Your task to perform on an android device: Check the settings for the Instagram app Image 0: 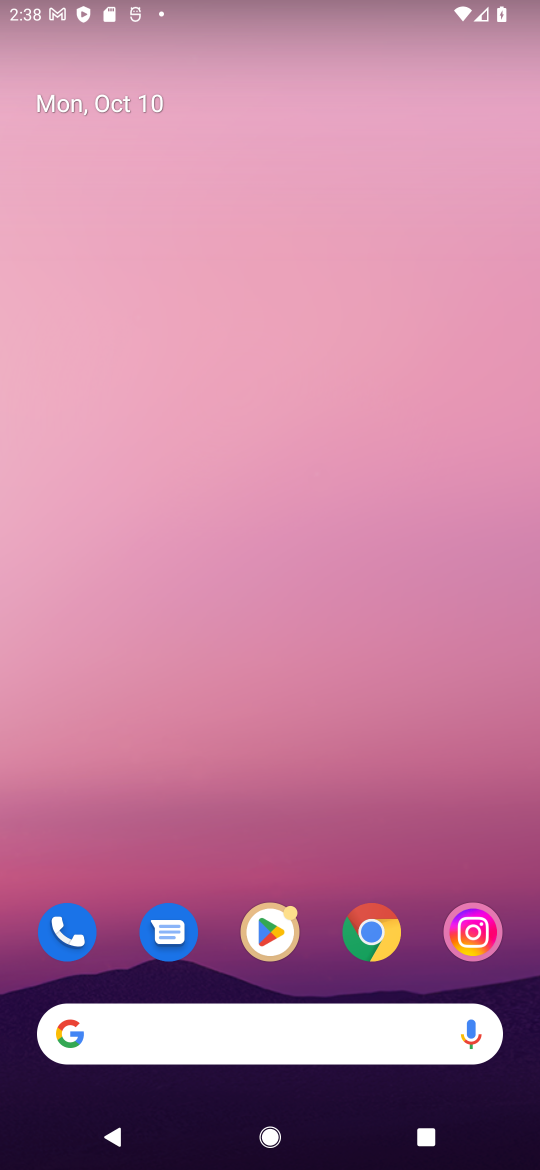
Step 0: press home button
Your task to perform on an android device: Check the settings for the Instagram app Image 1: 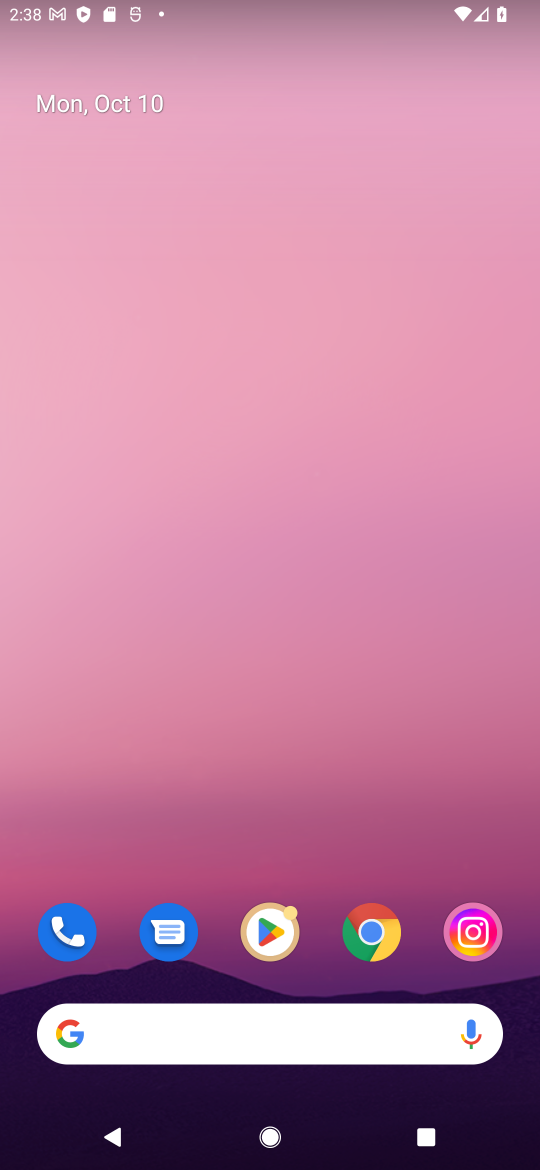
Step 1: drag from (465, 828) to (432, 34)
Your task to perform on an android device: Check the settings for the Instagram app Image 2: 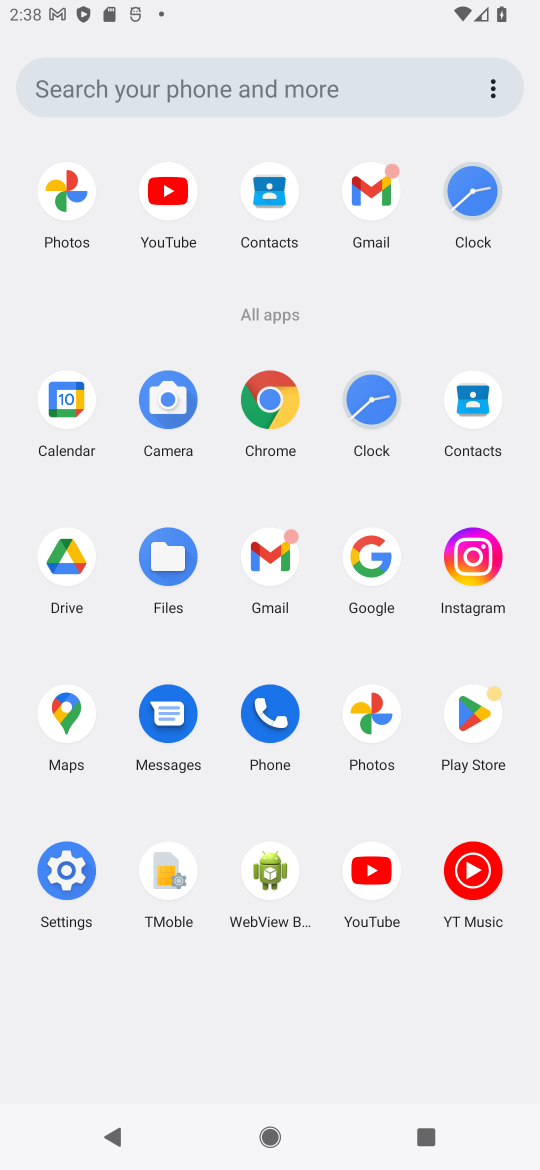
Step 2: click (486, 560)
Your task to perform on an android device: Check the settings for the Instagram app Image 3: 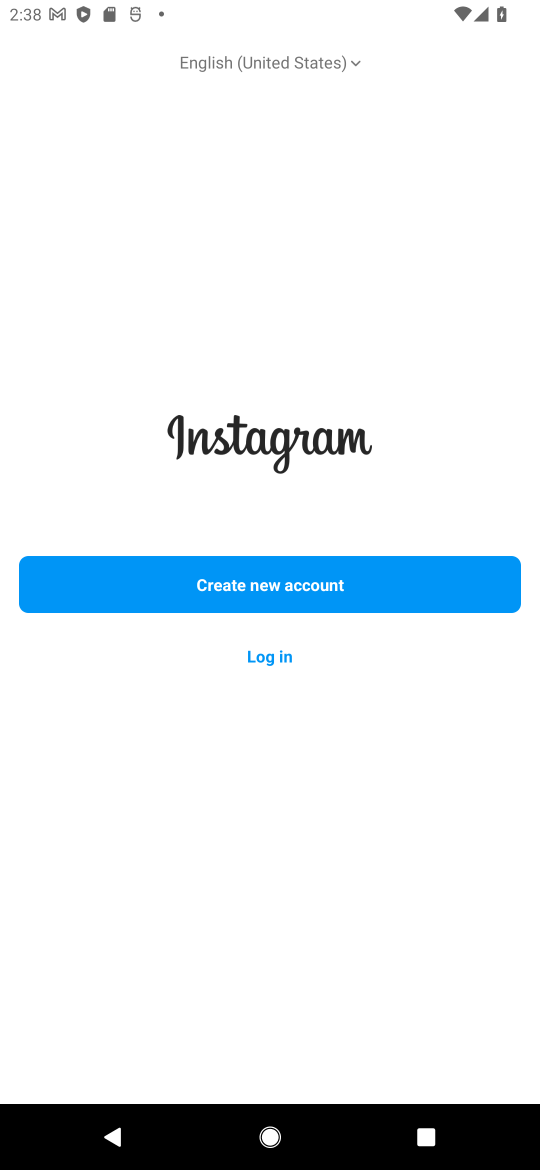
Step 3: click (280, 654)
Your task to perform on an android device: Check the settings for the Instagram app Image 4: 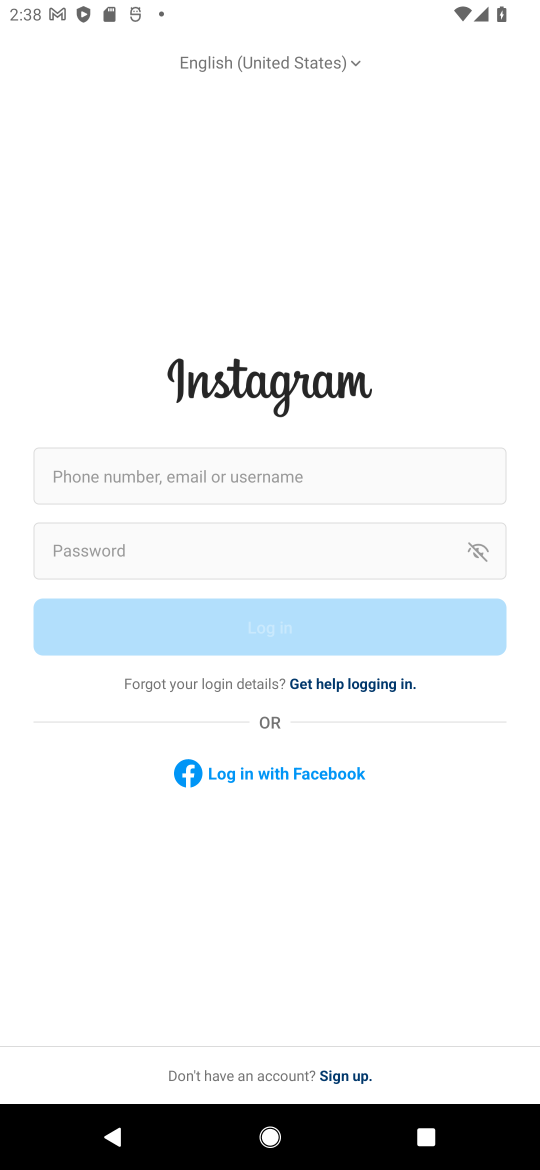
Step 4: task complete